Your task to perform on an android device: What is the news today? Image 0: 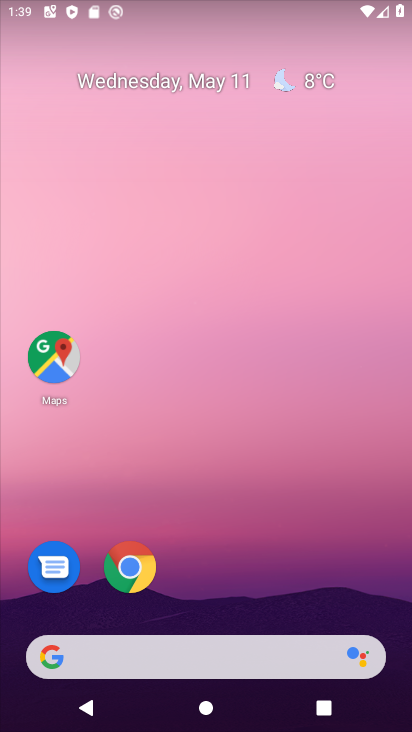
Step 0: drag from (11, 255) to (370, 397)
Your task to perform on an android device: What is the news today? Image 1: 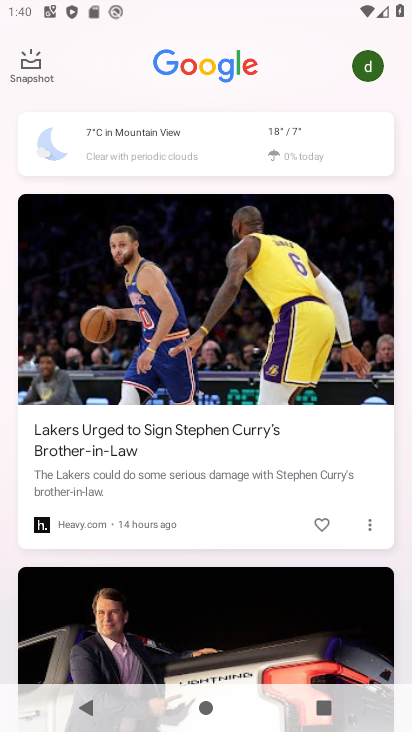
Step 1: task complete